Your task to perform on an android device: check out phone information Image 0: 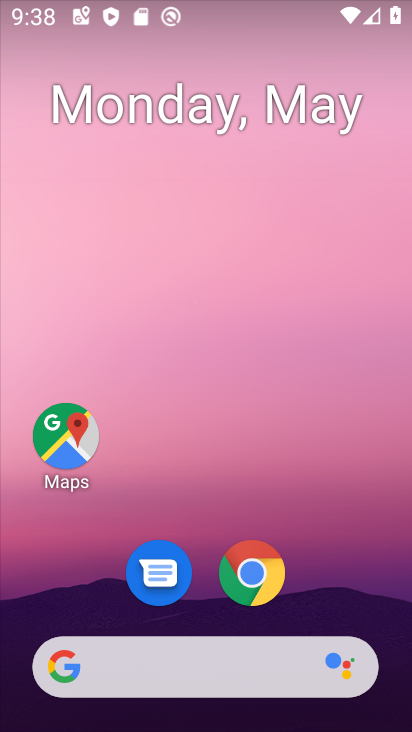
Step 0: drag from (358, 570) to (264, 39)
Your task to perform on an android device: check out phone information Image 1: 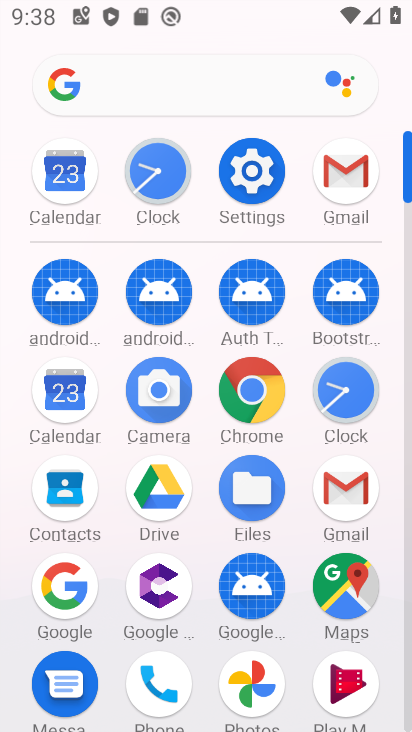
Step 1: click (269, 190)
Your task to perform on an android device: check out phone information Image 2: 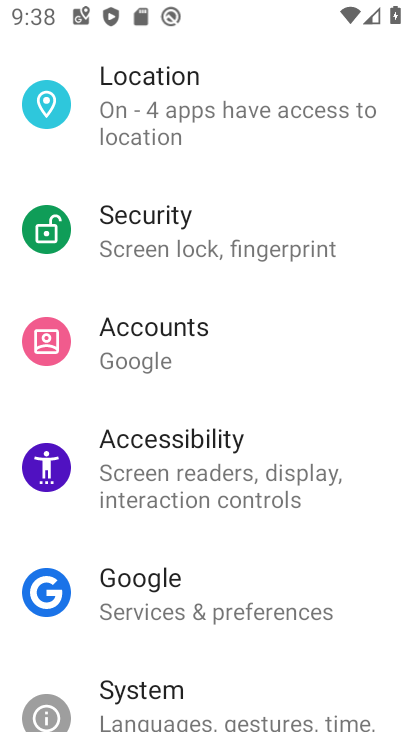
Step 2: drag from (221, 133) to (337, 706)
Your task to perform on an android device: check out phone information Image 3: 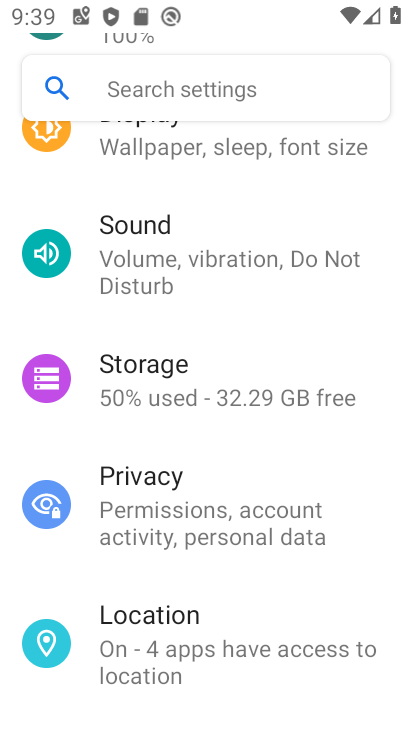
Step 3: drag from (224, 382) to (294, 689)
Your task to perform on an android device: check out phone information Image 4: 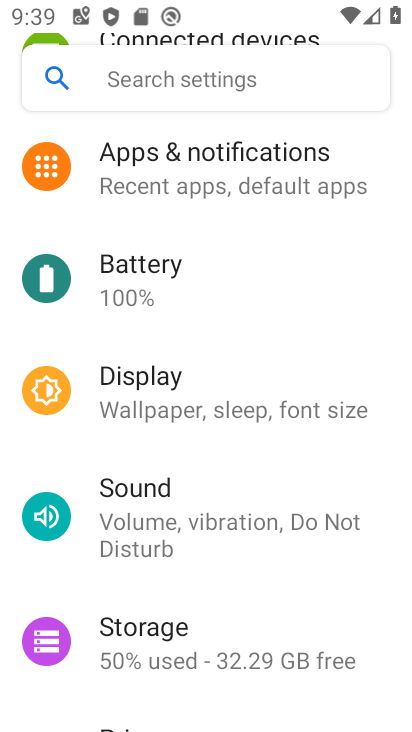
Step 4: click (300, 195)
Your task to perform on an android device: check out phone information Image 5: 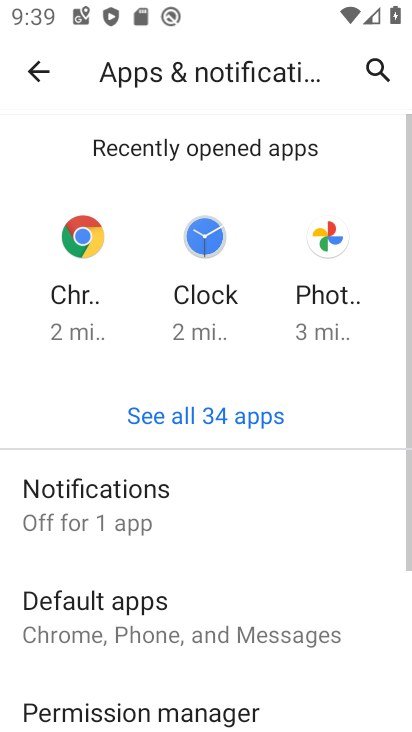
Step 5: task complete